Your task to perform on an android device: turn off priority inbox in the gmail app Image 0: 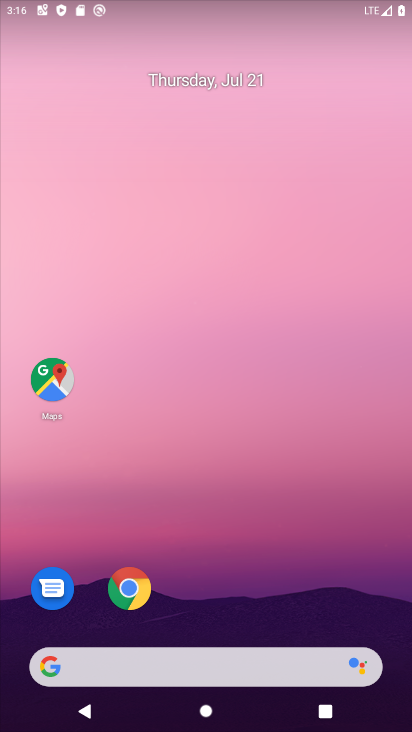
Step 0: drag from (309, 567) to (326, 11)
Your task to perform on an android device: turn off priority inbox in the gmail app Image 1: 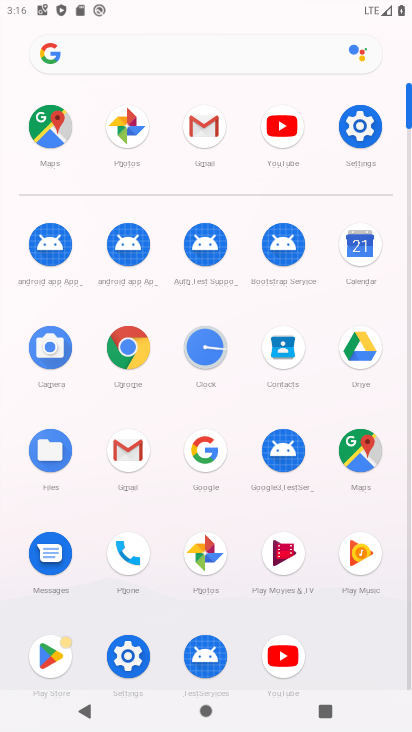
Step 1: click (127, 448)
Your task to perform on an android device: turn off priority inbox in the gmail app Image 2: 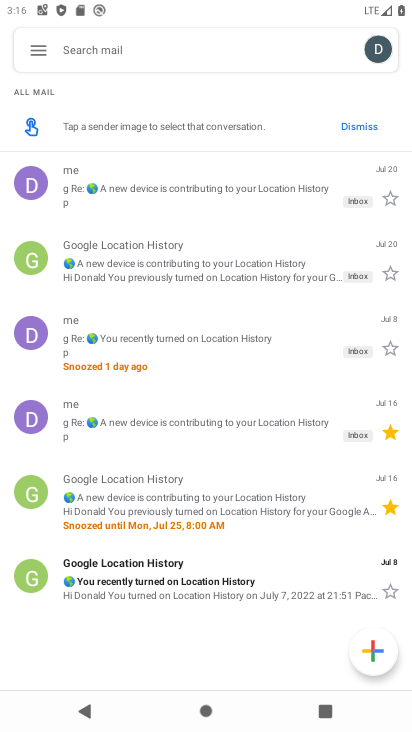
Step 2: click (32, 45)
Your task to perform on an android device: turn off priority inbox in the gmail app Image 3: 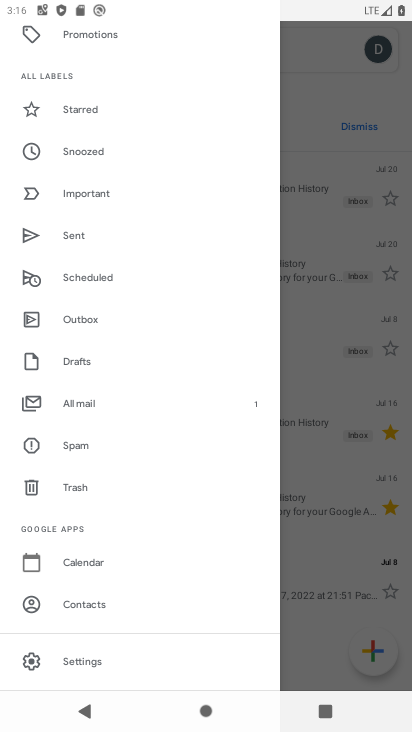
Step 3: click (94, 665)
Your task to perform on an android device: turn off priority inbox in the gmail app Image 4: 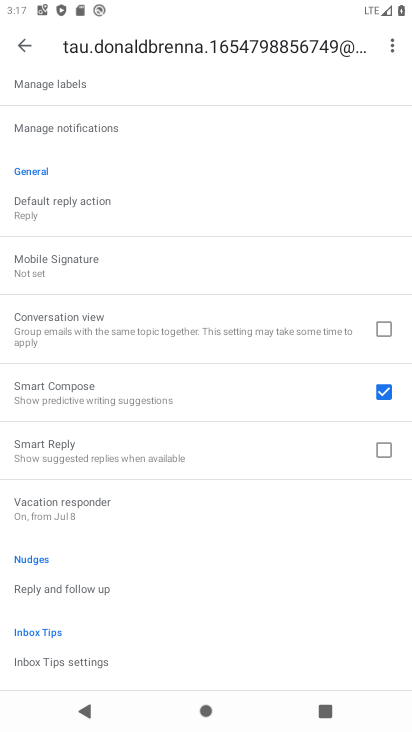
Step 4: drag from (144, 206) to (190, 483)
Your task to perform on an android device: turn off priority inbox in the gmail app Image 5: 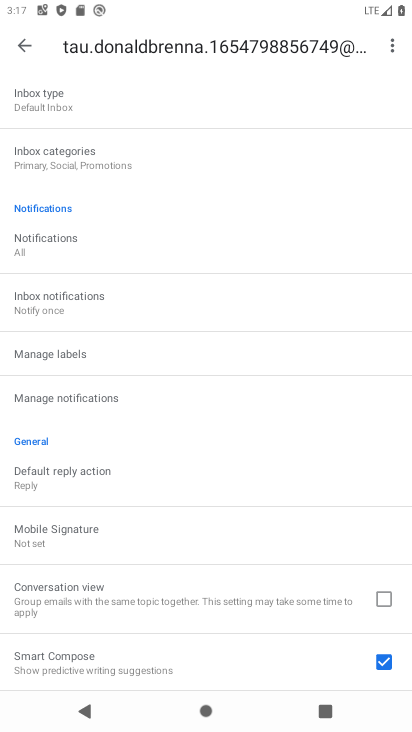
Step 5: drag from (157, 197) to (174, 339)
Your task to perform on an android device: turn off priority inbox in the gmail app Image 6: 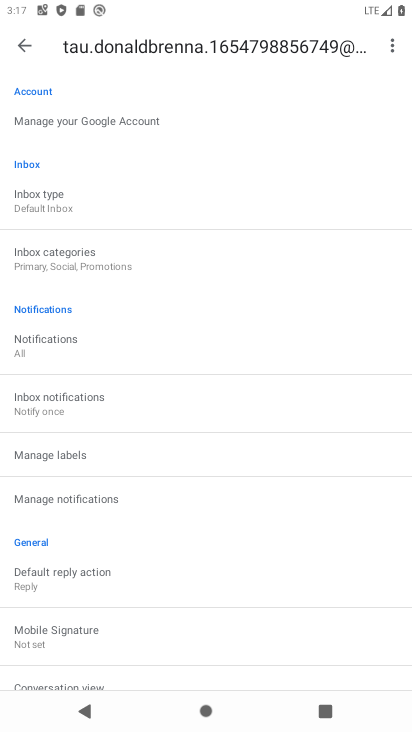
Step 6: click (40, 199)
Your task to perform on an android device: turn off priority inbox in the gmail app Image 7: 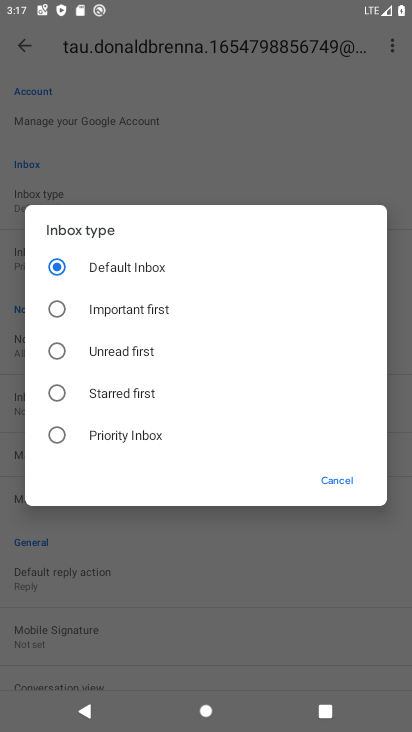
Step 7: click (133, 262)
Your task to perform on an android device: turn off priority inbox in the gmail app Image 8: 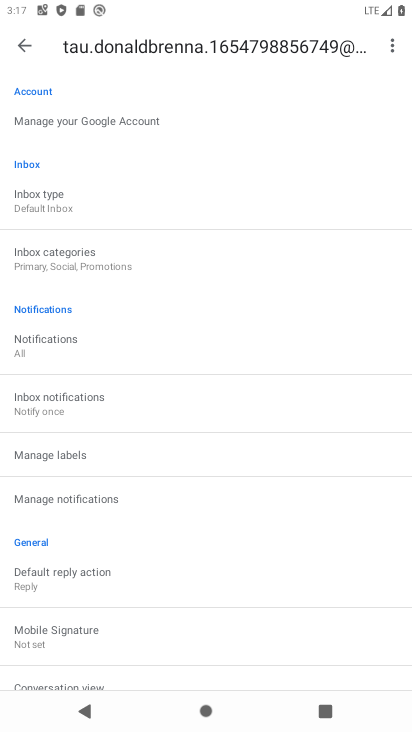
Step 8: task complete